Your task to perform on an android device: set the timer Image 0: 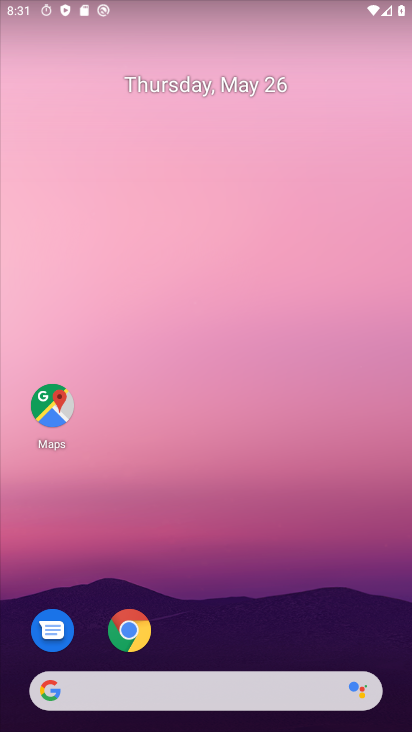
Step 0: drag from (236, 606) to (239, 79)
Your task to perform on an android device: set the timer Image 1: 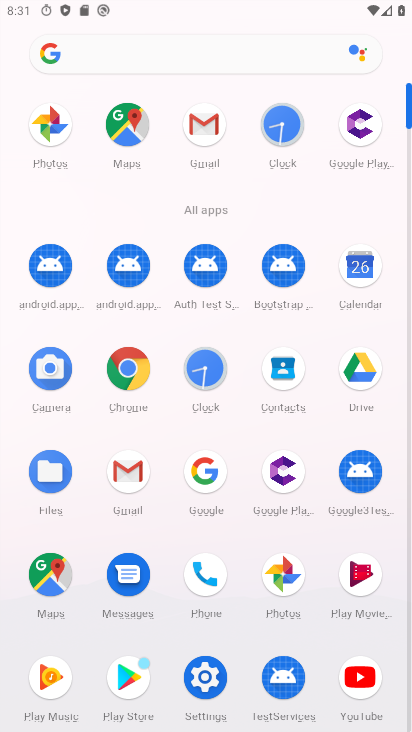
Step 1: click (279, 121)
Your task to perform on an android device: set the timer Image 2: 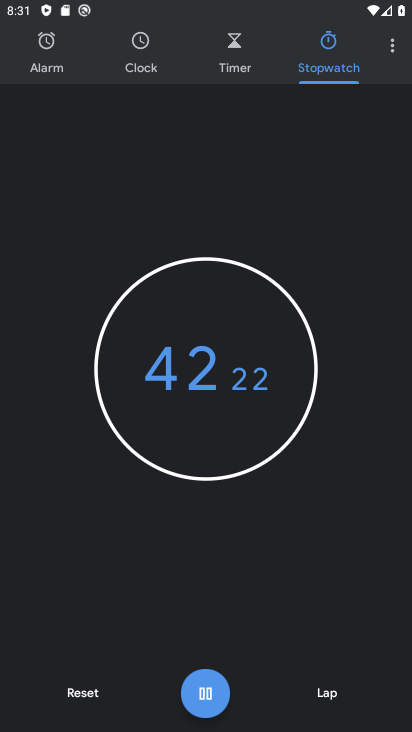
Step 2: drag from (388, 45) to (149, 134)
Your task to perform on an android device: set the timer Image 3: 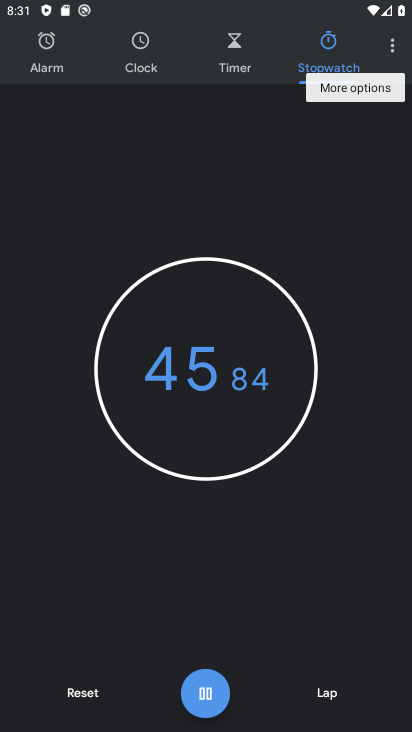
Step 3: click (229, 61)
Your task to perform on an android device: set the timer Image 4: 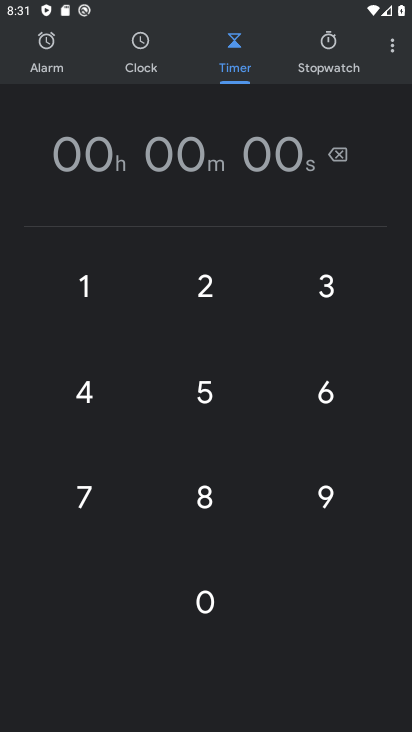
Step 4: click (214, 390)
Your task to perform on an android device: set the timer Image 5: 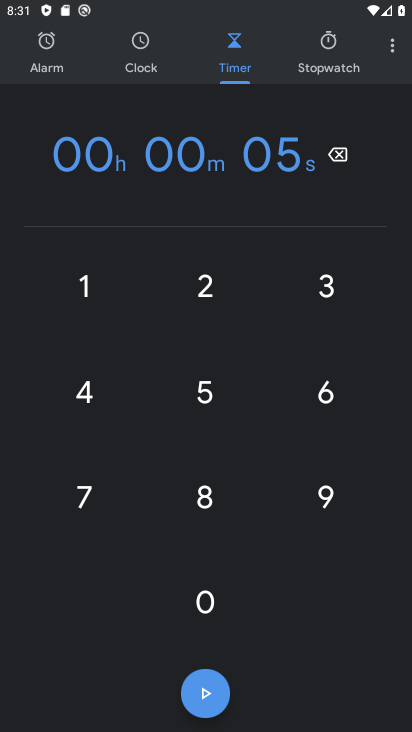
Step 5: click (204, 283)
Your task to perform on an android device: set the timer Image 6: 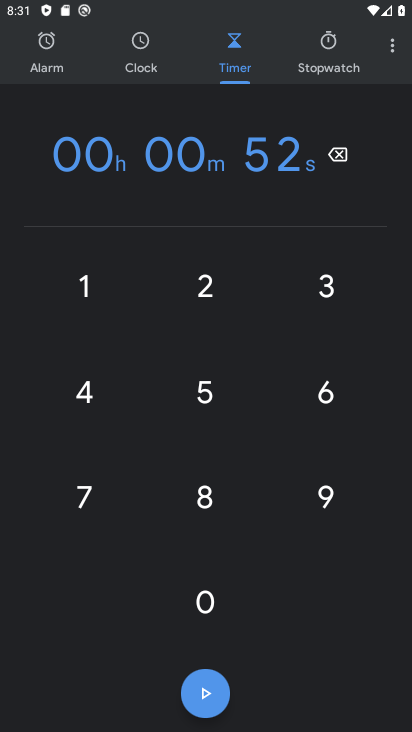
Step 6: click (326, 283)
Your task to perform on an android device: set the timer Image 7: 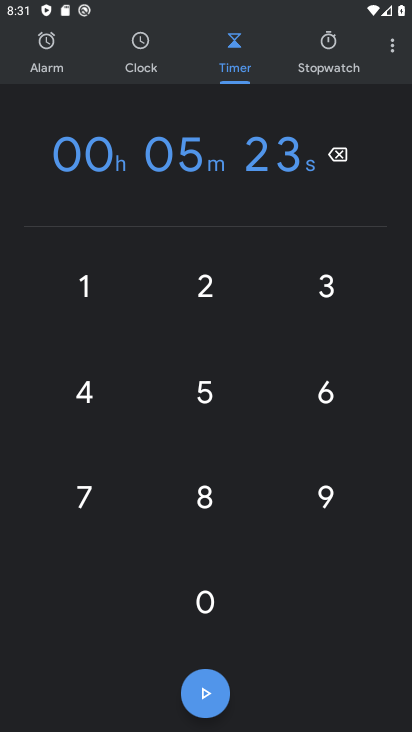
Step 7: click (206, 270)
Your task to perform on an android device: set the timer Image 8: 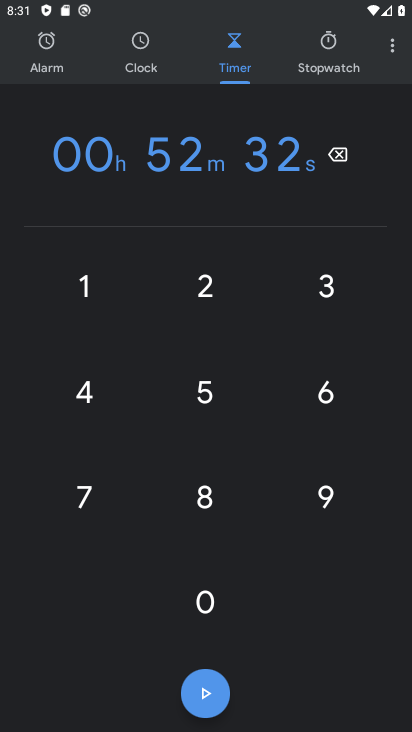
Step 8: click (207, 679)
Your task to perform on an android device: set the timer Image 9: 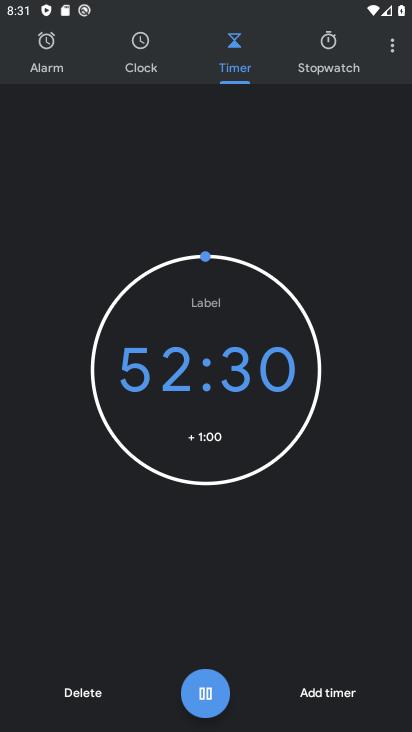
Step 9: task complete